Your task to perform on an android device: check out phone information Image 0: 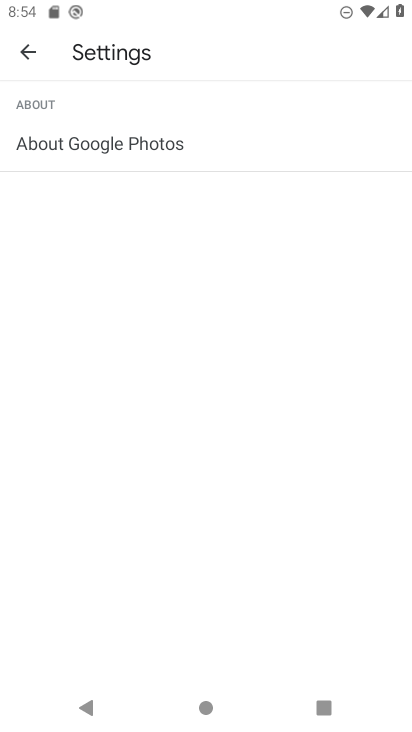
Step 0: press back button
Your task to perform on an android device: check out phone information Image 1: 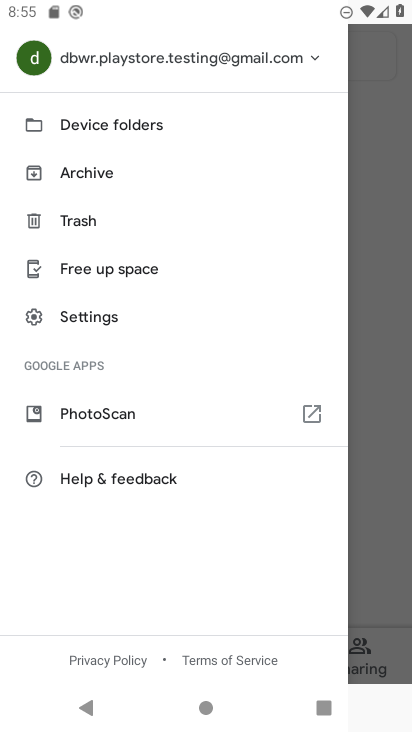
Step 1: press home button
Your task to perform on an android device: check out phone information Image 2: 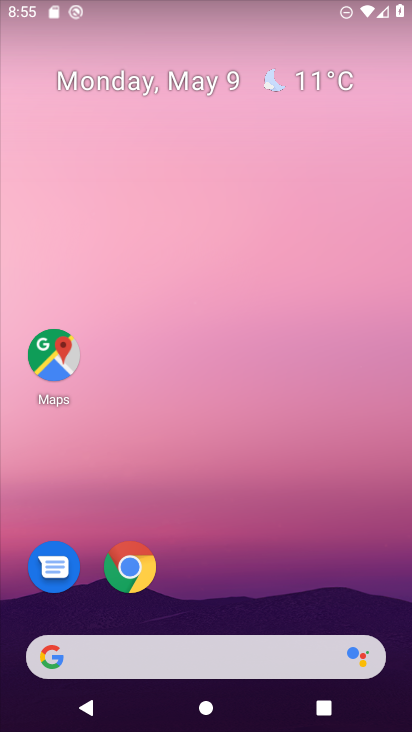
Step 2: drag from (225, 630) to (320, 45)
Your task to perform on an android device: check out phone information Image 3: 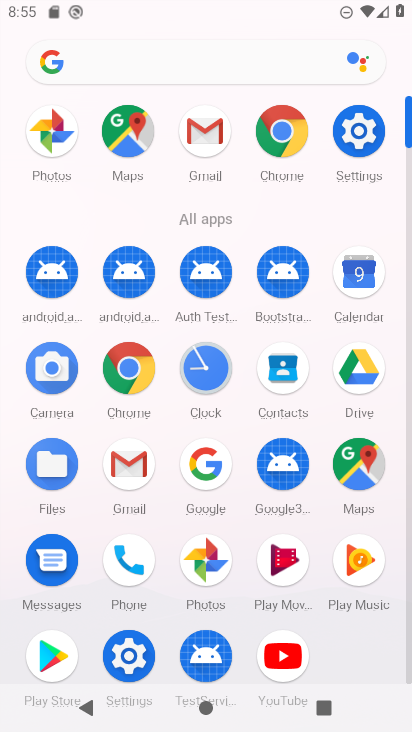
Step 3: click (125, 671)
Your task to perform on an android device: check out phone information Image 4: 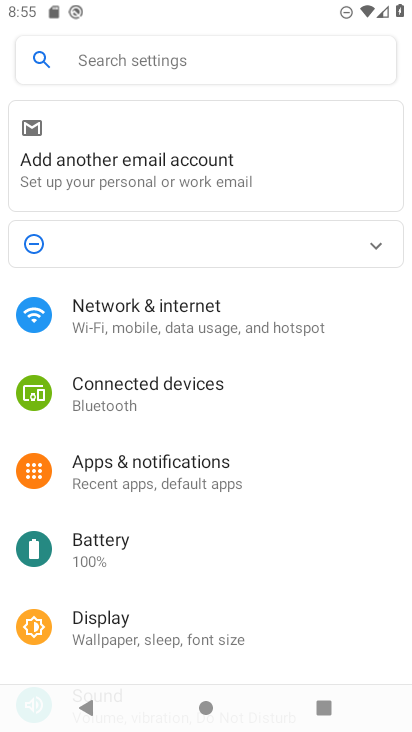
Step 4: drag from (159, 632) to (271, 109)
Your task to perform on an android device: check out phone information Image 5: 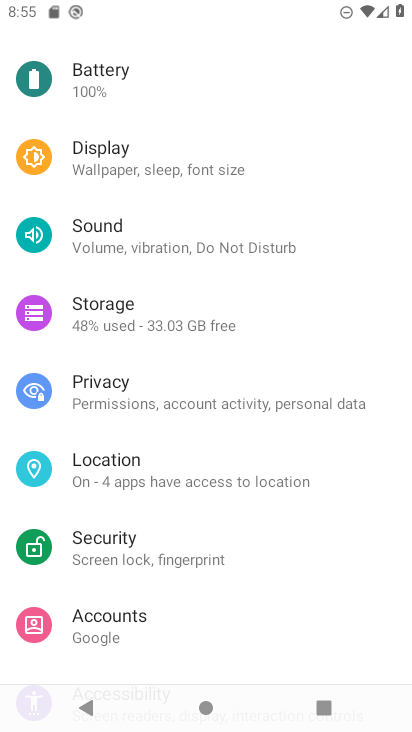
Step 5: drag from (174, 679) to (280, 91)
Your task to perform on an android device: check out phone information Image 6: 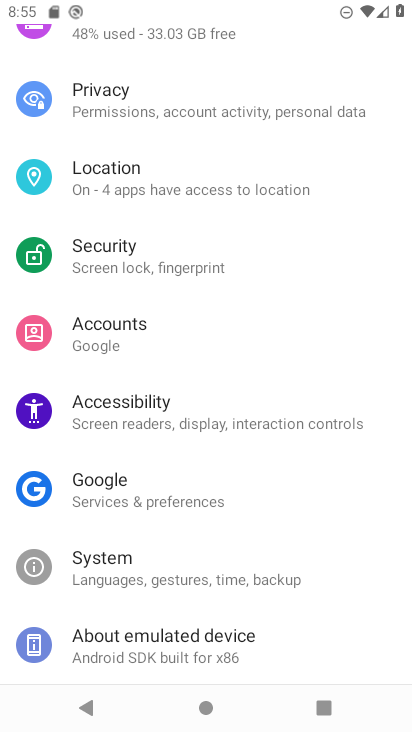
Step 6: click (183, 632)
Your task to perform on an android device: check out phone information Image 7: 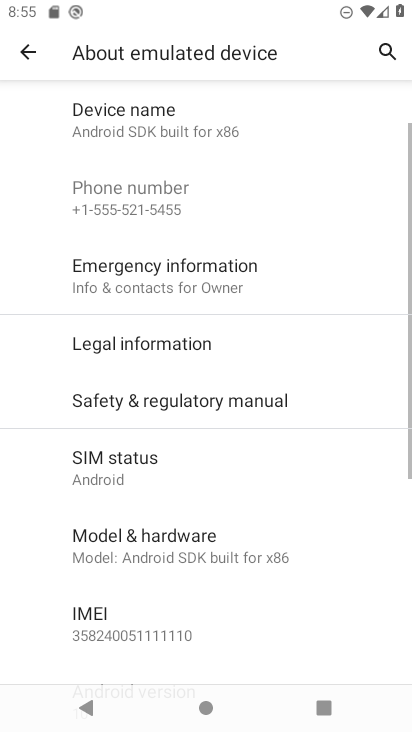
Step 7: task complete